Your task to perform on an android device: Go to accessibility settings Image 0: 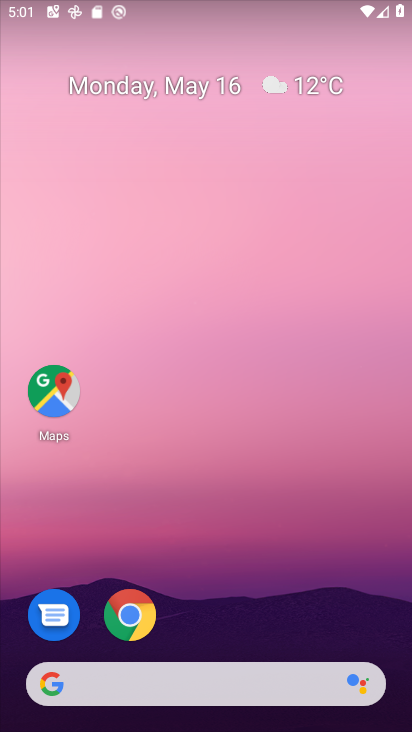
Step 0: drag from (230, 625) to (248, 133)
Your task to perform on an android device: Go to accessibility settings Image 1: 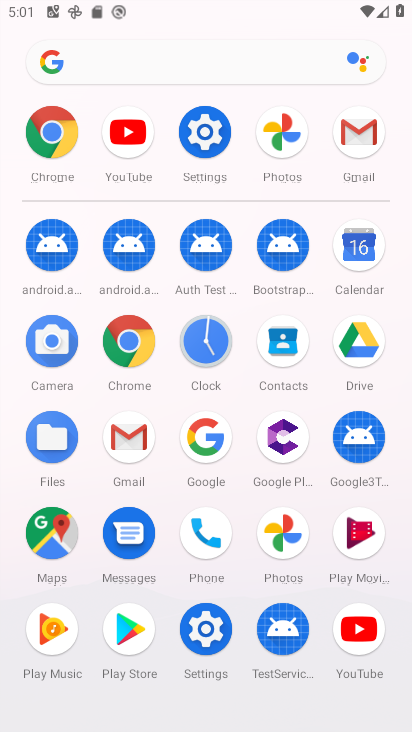
Step 1: click (198, 632)
Your task to perform on an android device: Go to accessibility settings Image 2: 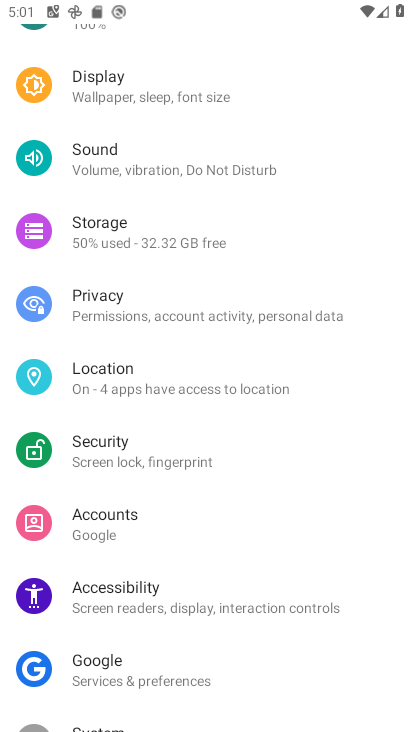
Step 2: click (116, 590)
Your task to perform on an android device: Go to accessibility settings Image 3: 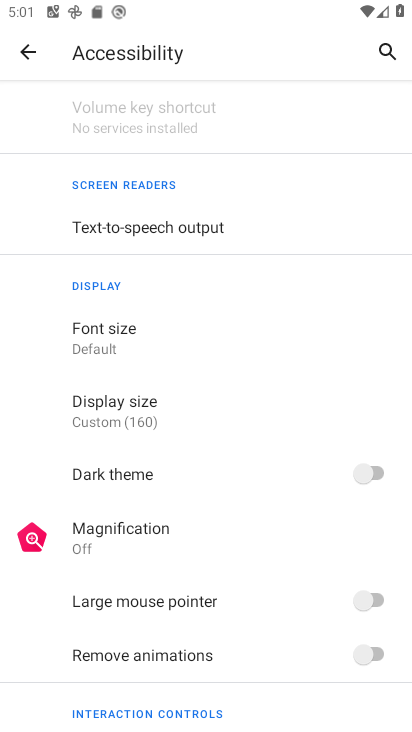
Step 3: task complete